Your task to perform on an android device: Install the Yahoo app Image 0: 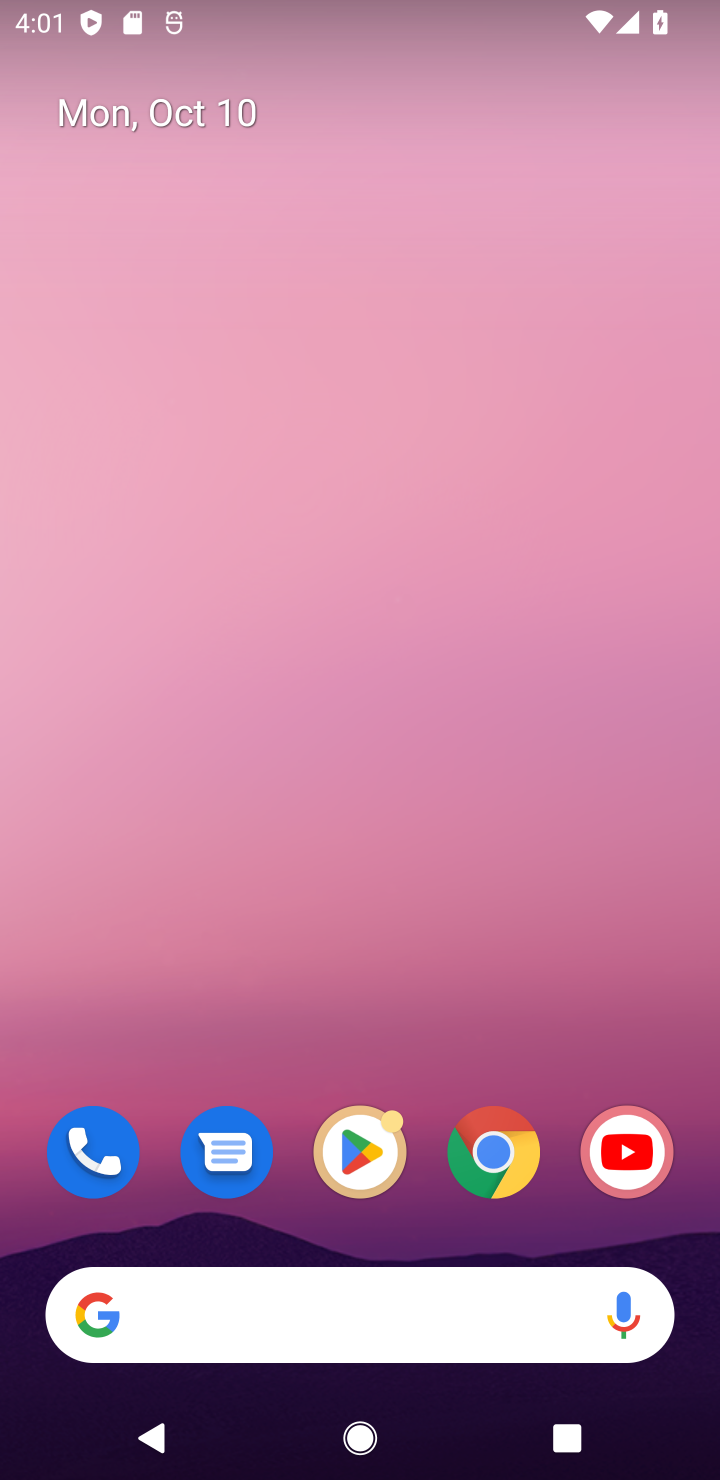
Step 0: click (369, 1154)
Your task to perform on an android device: Install the Yahoo app Image 1: 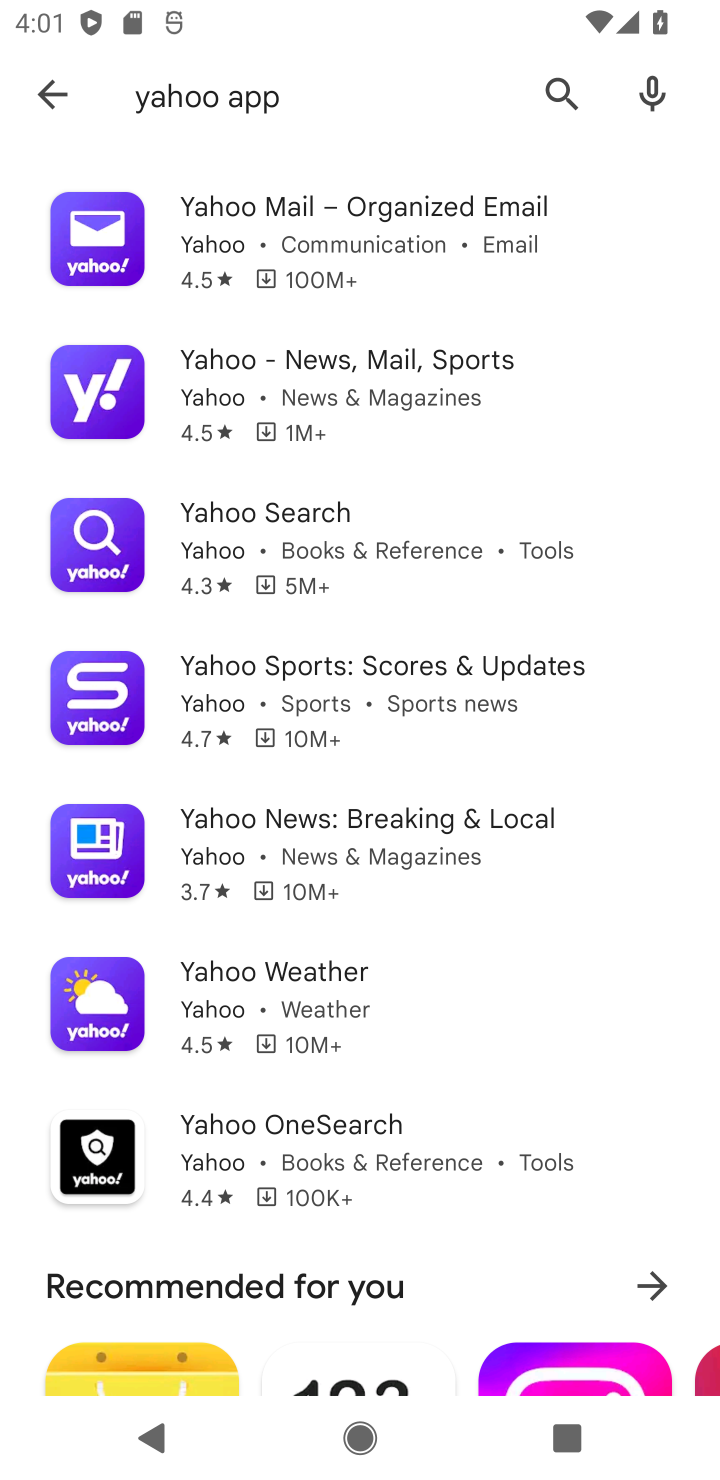
Step 1: task complete